Your task to perform on an android device: See recent photos Image 0: 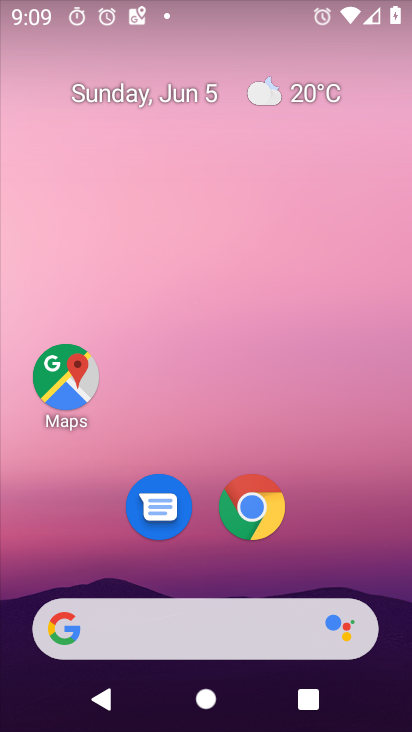
Step 0: drag from (322, 535) to (216, 28)
Your task to perform on an android device: See recent photos Image 1: 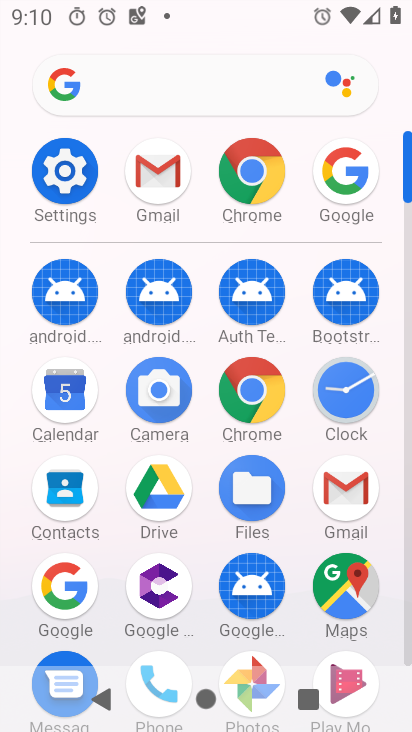
Step 1: drag from (15, 567) to (6, 297)
Your task to perform on an android device: See recent photos Image 2: 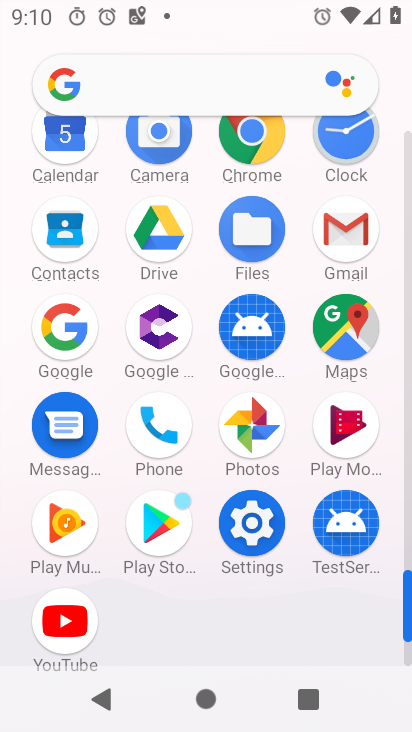
Step 2: click (252, 421)
Your task to perform on an android device: See recent photos Image 3: 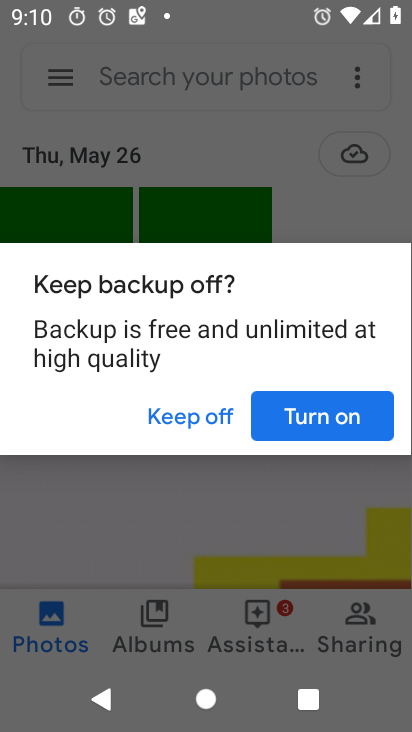
Step 3: click (342, 410)
Your task to perform on an android device: See recent photos Image 4: 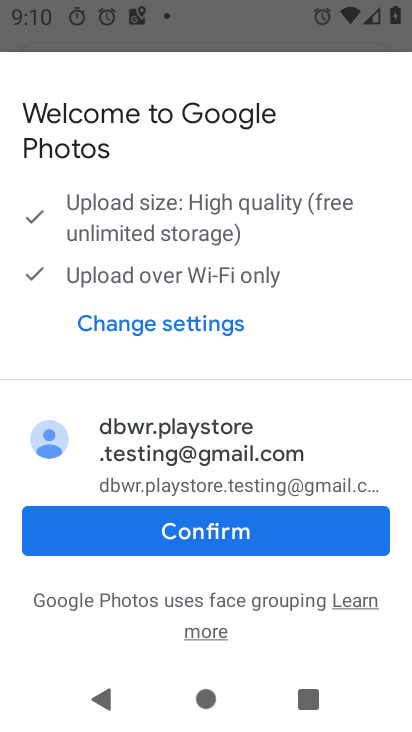
Step 4: click (268, 518)
Your task to perform on an android device: See recent photos Image 5: 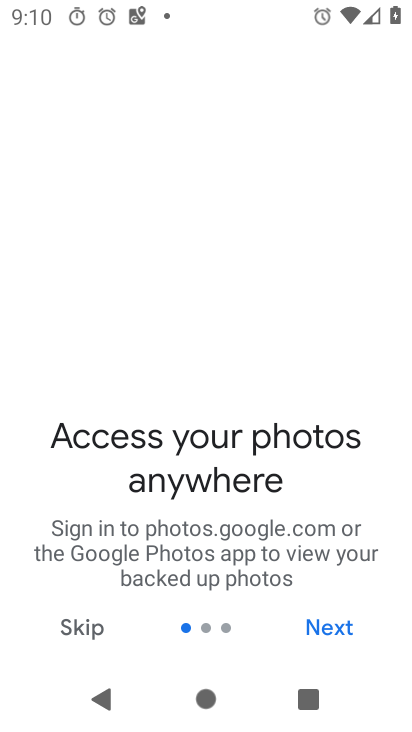
Step 5: click (337, 629)
Your task to perform on an android device: See recent photos Image 6: 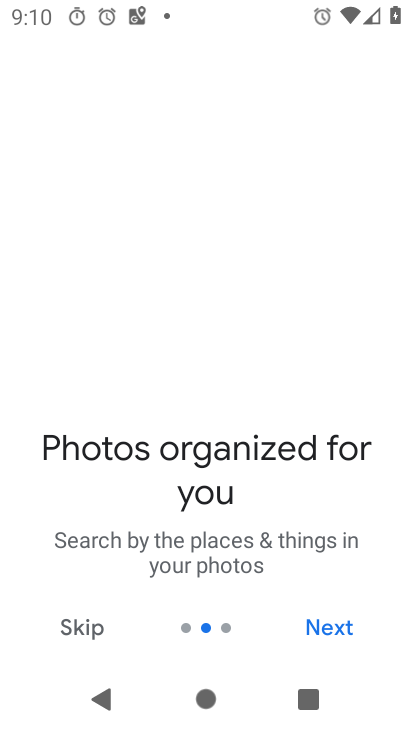
Step 6: click (337, 629)
Your task to perform on an android device: See recent photos Image 7: 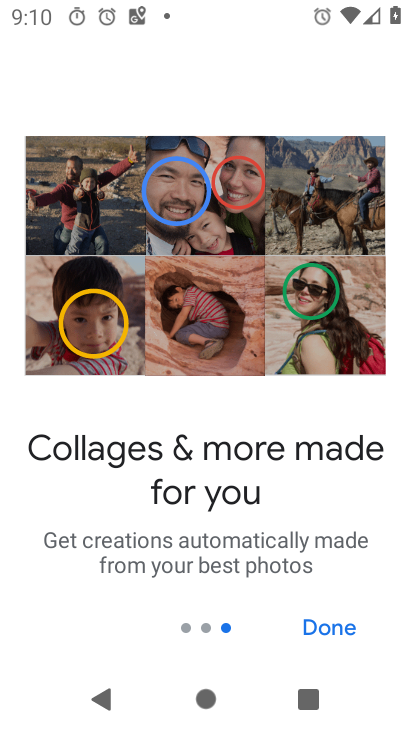
Step 7: click (337, 629)
Your task to perform on an android device: See recent photos Image 8: 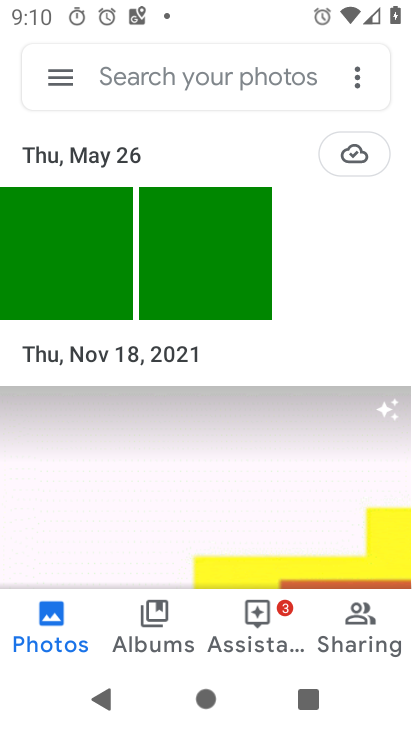
Step 8: task complete